Your task to perform on an android device: Open wifi settings Image 0: 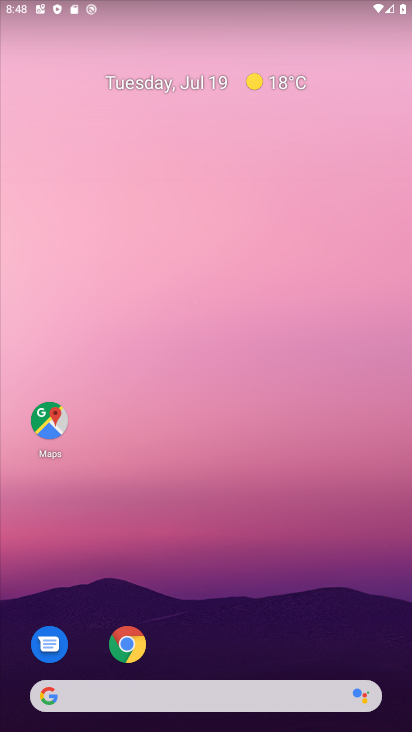
Step 0: drag from (227, 728) to (224, 261)
Your task to perform on an android device: Open wifi settings Image 1: 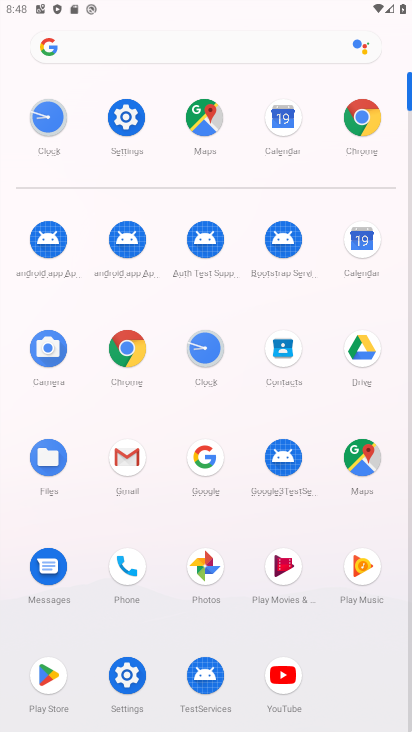
Step 1: click (123, 116)
Your task to perform on an android device: Open wifi settings Image 2: 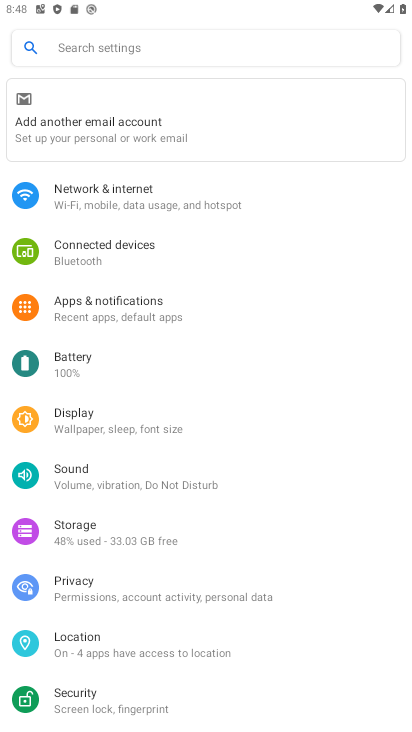
Step 2: click (90, 194)
Your task to perform on an android device: Open wifi settings Image 3: 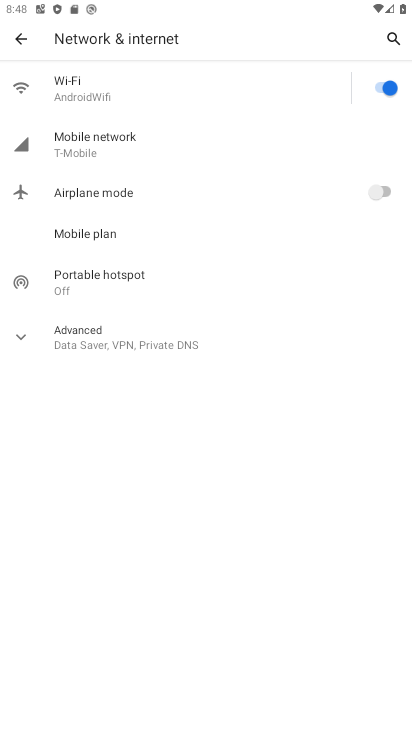
Step 3: click (86, 93)
Your task to perform on an android device: Open wifi settings Image 4: 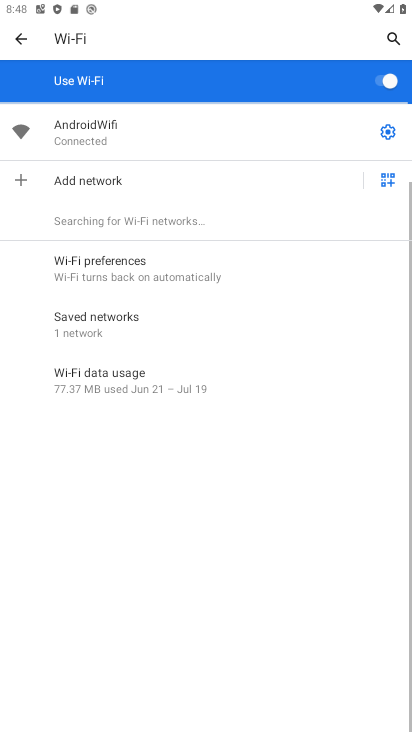
Step 4: task complete